Your task to perform on an android device: delete the emails in spam in the gmail app Image 0: 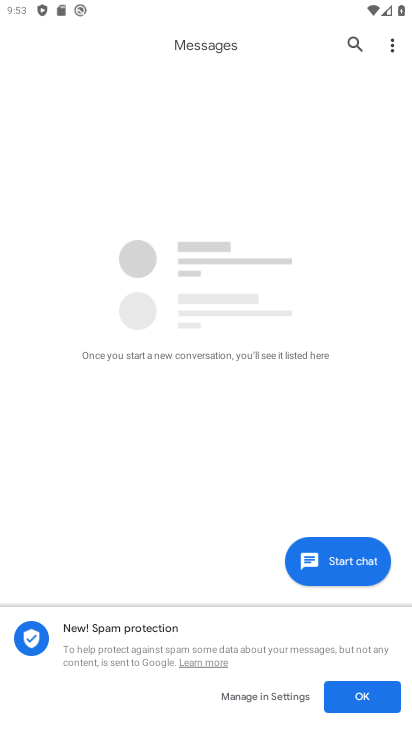
Step 0: press home button
Your task to perform on an android device: delete the emails in spam in the gmail app Image 1: 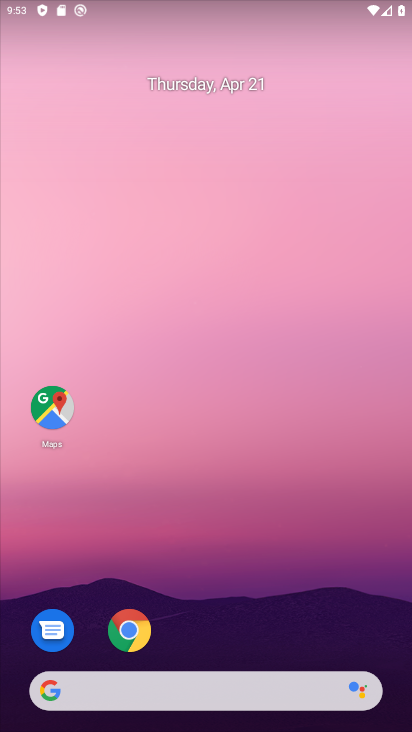
Step 1: drag from (217, 512) to (278, 167)
Your task to perform on an android device: delete the emails in spam in the gmail app Image 2: 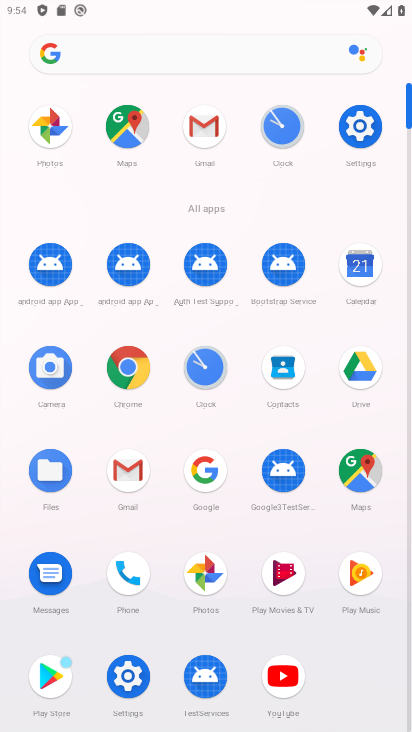
Step 2: click (219, 130)
Your task to perform on an android device: delete the emails in spam in the gmail app Image 3: 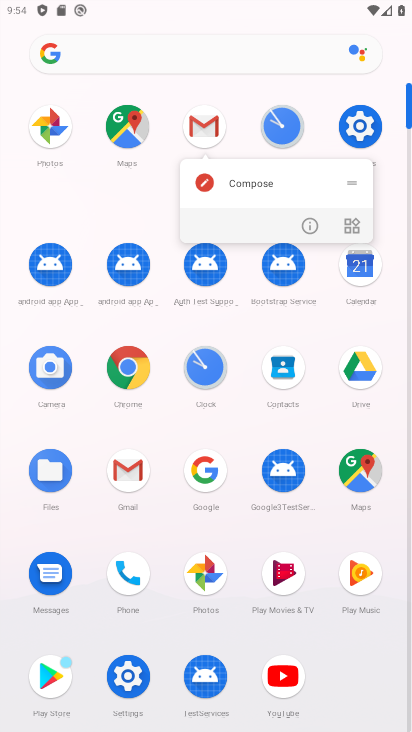
Step 3: click (191, 129)
Your task to perform on an android device: delete the emails in spam in the gmail app Image 4: 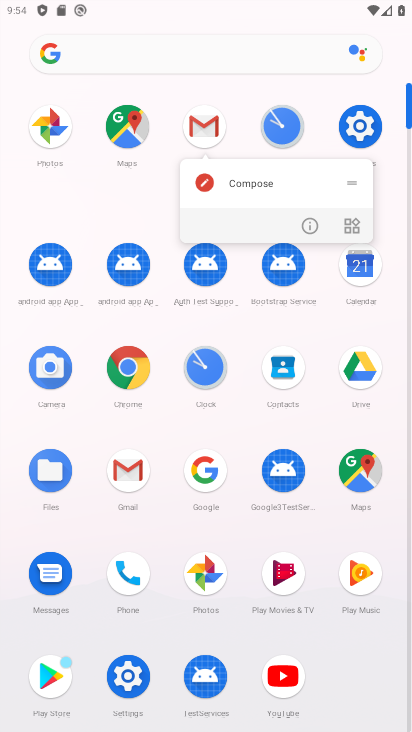
Step 4: click (194, 130)
Your task to perform on an android device: delete the emails in spam in the gmail app Image 5: 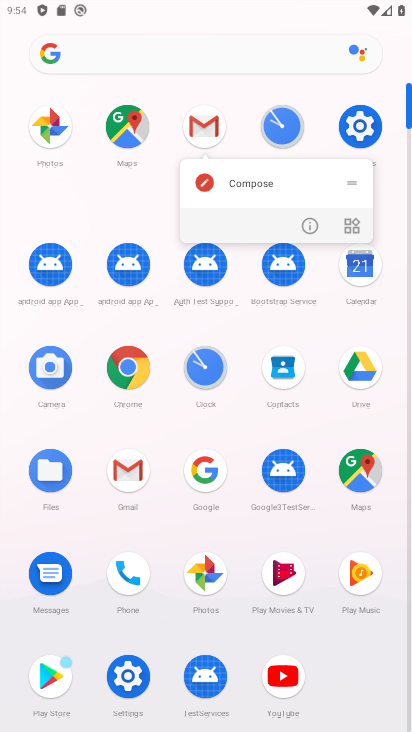
Step 5: click (203, 124)
Your task to perform on an android device: delete the emails in spam in the gmail app Image 6: 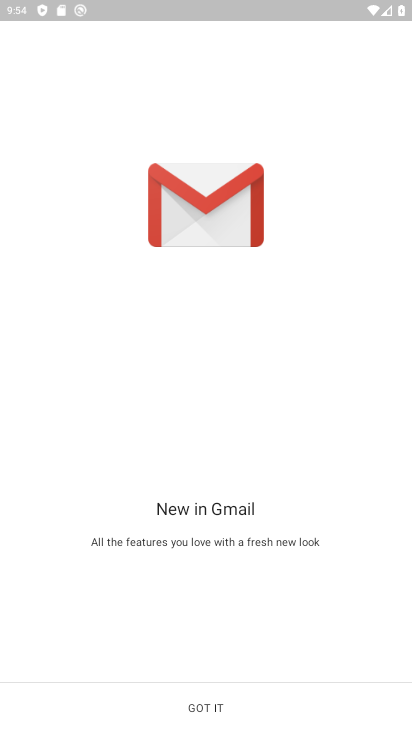
Step 6: click (208, 695)
Your task to perform on an android device: delete the emails in spam in the gmail app Image 7: 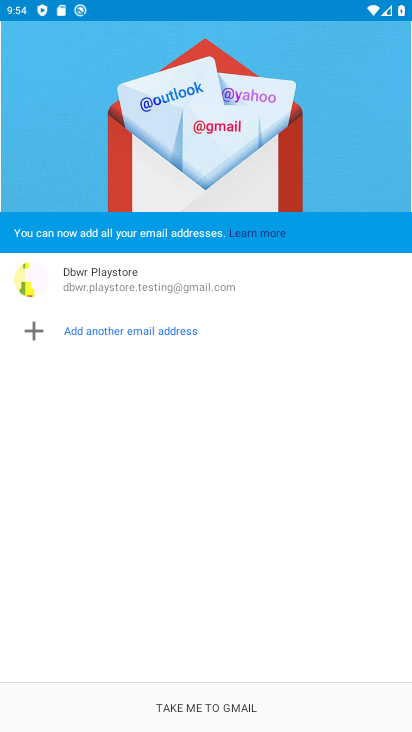
Step 7: click (212, 705)
Your task to perform on an android device: delete the emails in spam in the gmail app Image 8: 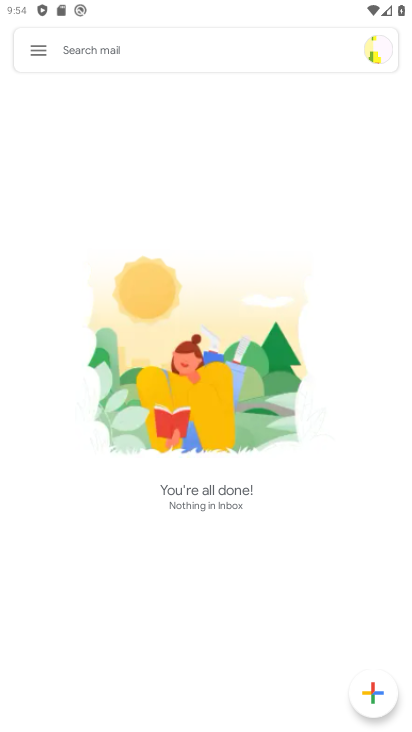
Step 8: task complete